Your task to perform on an android device: Check the weather Image 0: 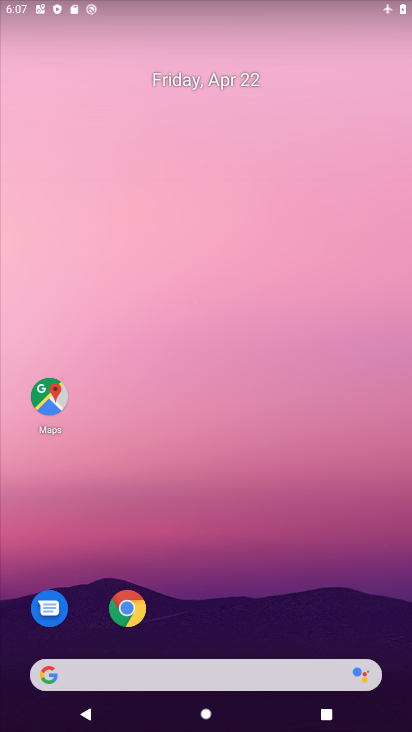
Step 0: drag from (239, 548) to (212, 100)
Your task to perform on an android device: Check the weather Image 1: 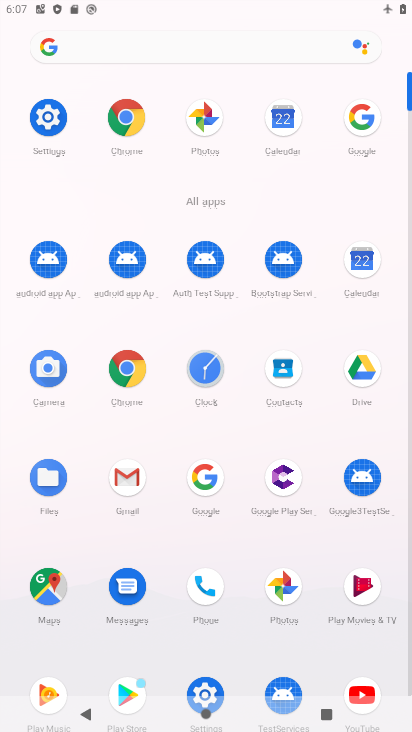
Step 1: drag from (245, 608) to (257, 322)
Your task to perform on an android device: Check the weather Image 2: 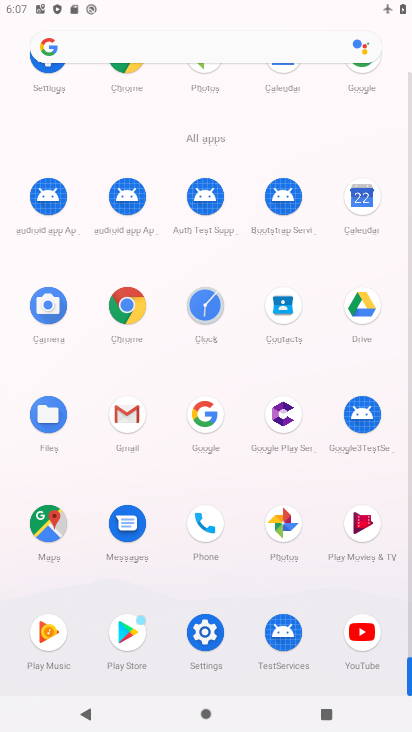
Step 2: click (207, 425)
Your task to perform on an android device: Check the weather Image 3: 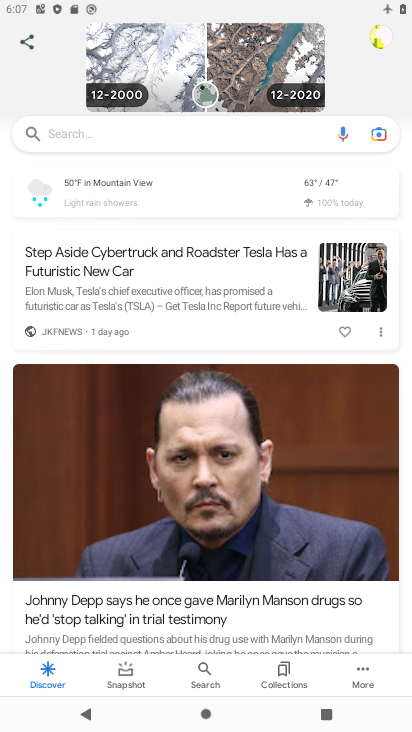
Step 3: click (230, 145)
Your task to perform on an android device: Check the weather Image 4: 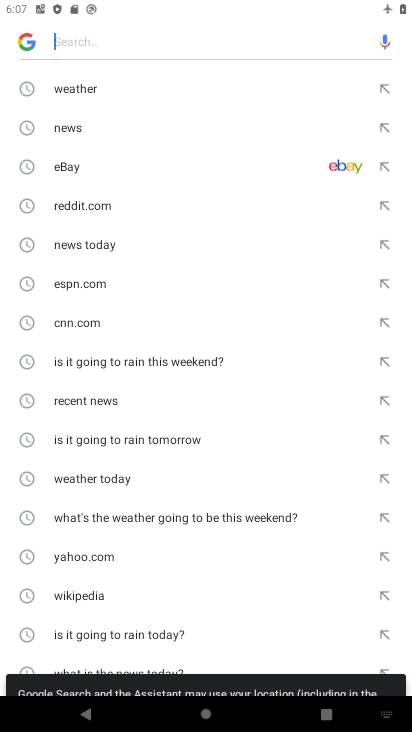
Step 4: click (77, 90)
Your task to perform on an android device: Check the weather Image 5: 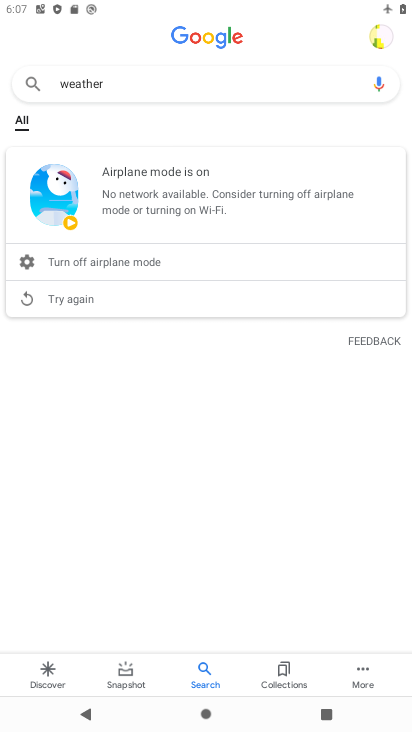
Step 5: task complete